Your task to perform on an android device: Go to CNN.com Image 0: 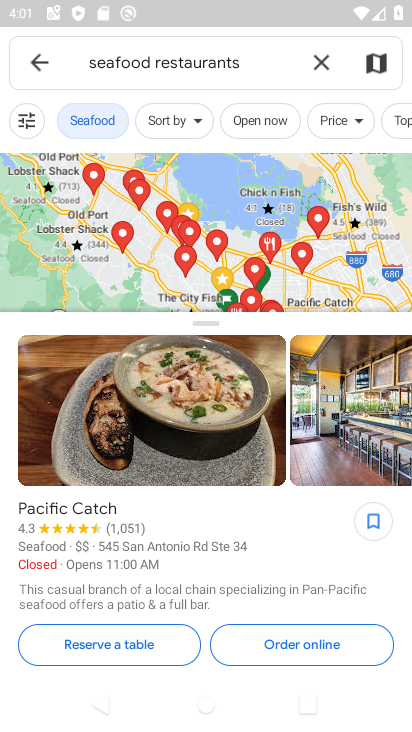
Step 0: press home button
Your task to perform on an android device: Go to CNN.com Image 1: 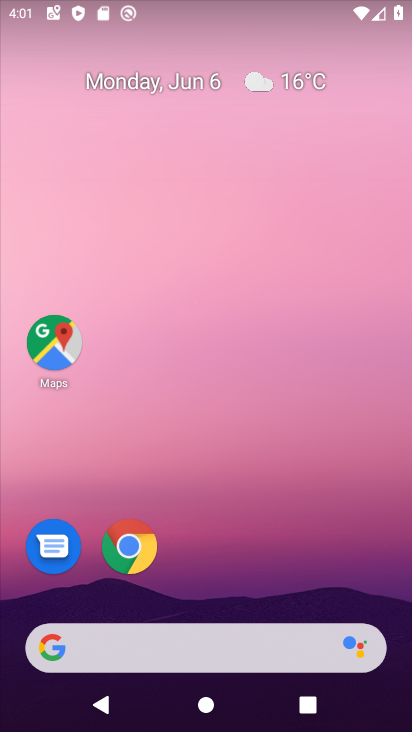
Step 1: drag from (269, 556) to (317, 19)
Your task to perform on an android device: Go to CNN.com Image 2: 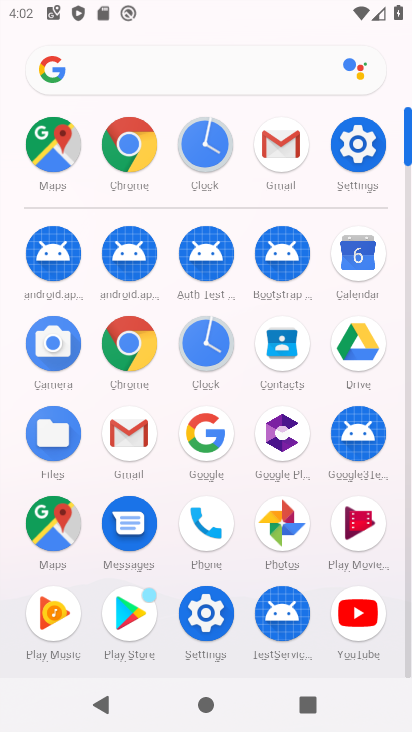
Step 2: click (131, 156)
Your task to perform on an android device: Go to CNN.com Image 3: 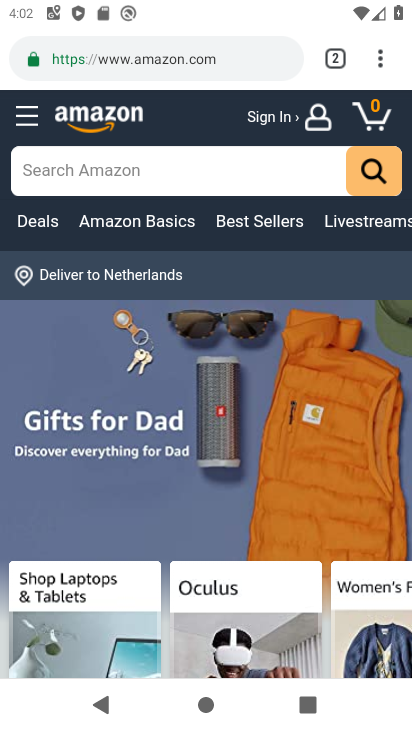
Step 3: click (230, 69)
Your task to perform on an android device: Go to CNN.com Image 4: 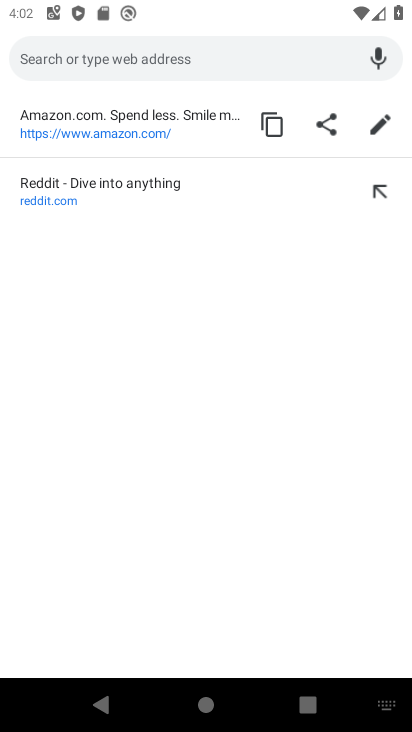
Step 4: type "cnn"
Your task to perform on an android device: Go to CNN.com Image 5: 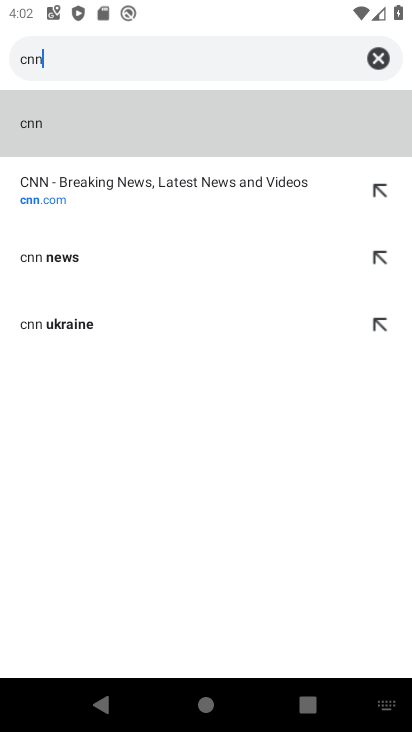
Step 5: click (56, 195)
Your task to perform on an android device: Go to CNN.com Image 6: 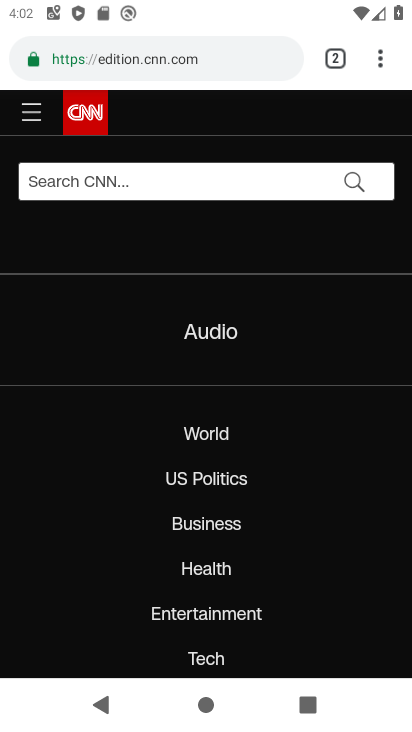
Step 6: task complete